Your task to perform on an android device: delete location history Image 0: 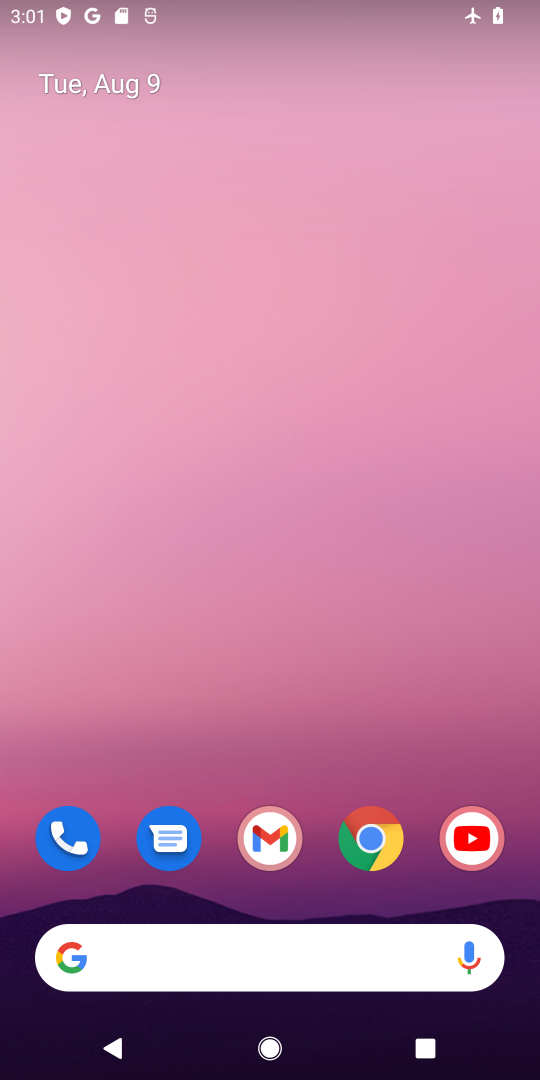
Step 0: drag from (316, 896) to (490, 168)
Your task to perform on an android device: delete location history Image 1: 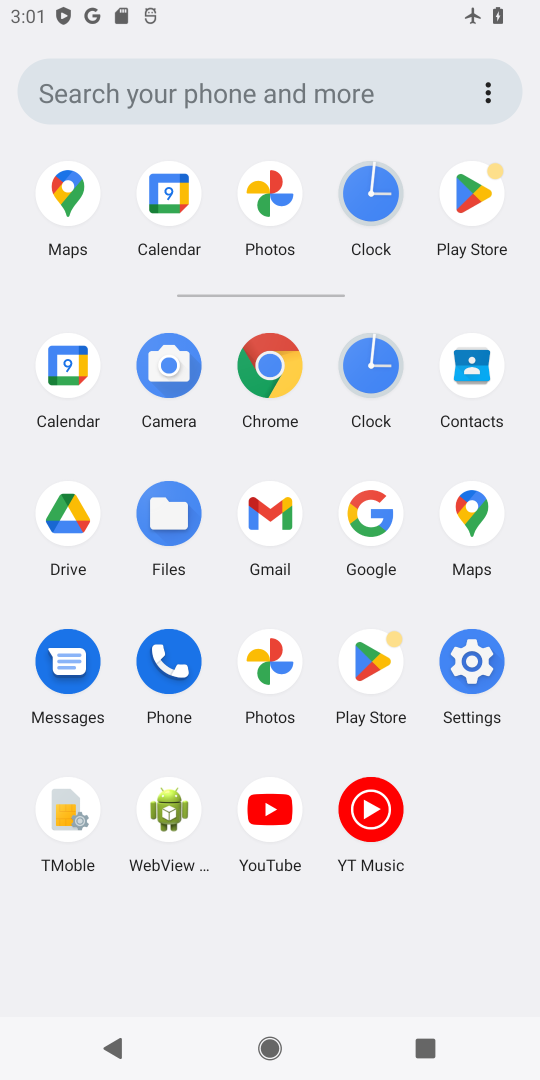
Step 1: click (481, 517)
Your task to perform on an android device: delete location history Image 2: 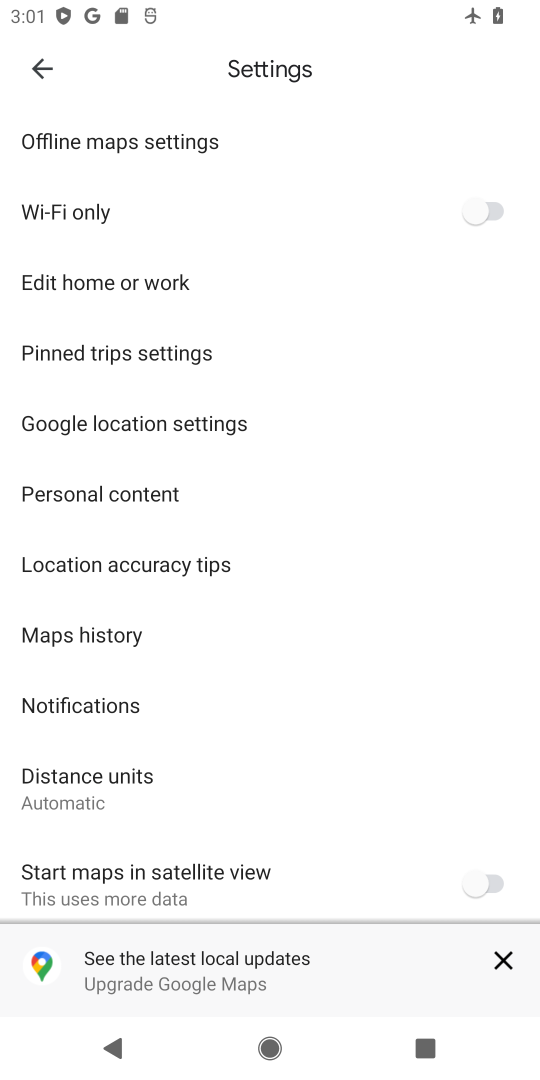
Step 2: click (56, 637)
Your task to perform on an android device: delete location history Image 3: 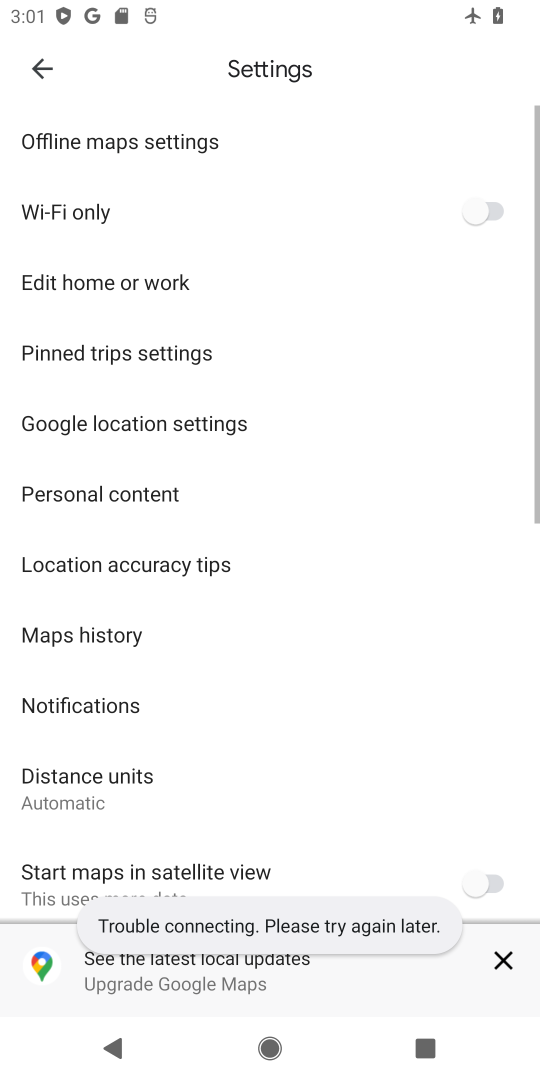
Step 3: click (56, 637)
Your task to perform on an android device: delete location history Image 4: 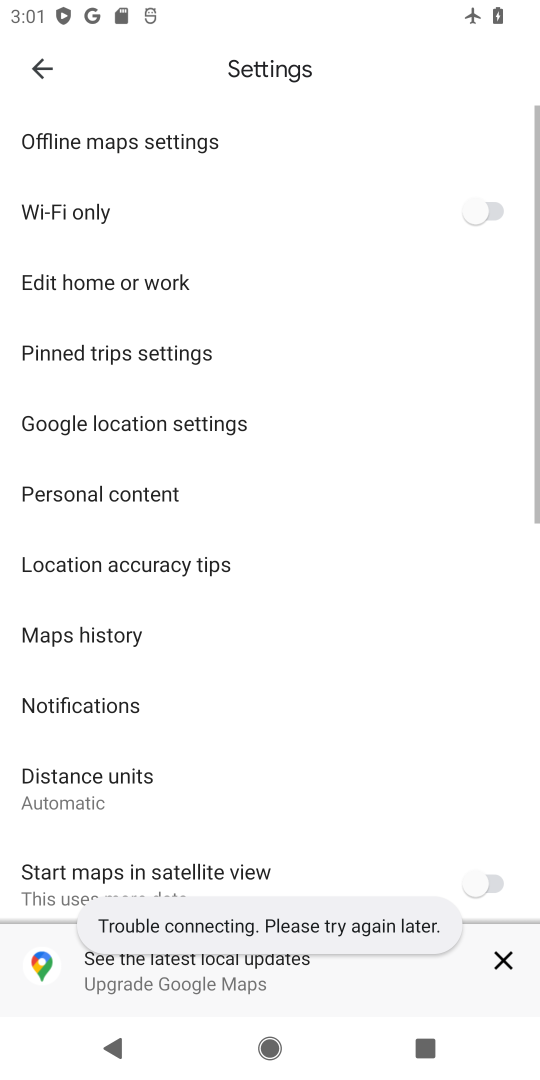
Step 4: task complete